Your task to perform on an android device: Go to calendar. Show me events next week Image 0: 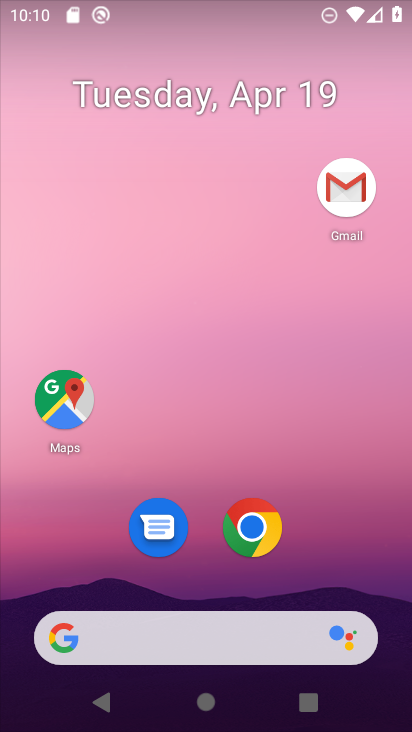
Step 0: drag from (354, 521) to (357, 136)
Your task to perform on an android device: Go to calendar. Show me events next week Image 1: 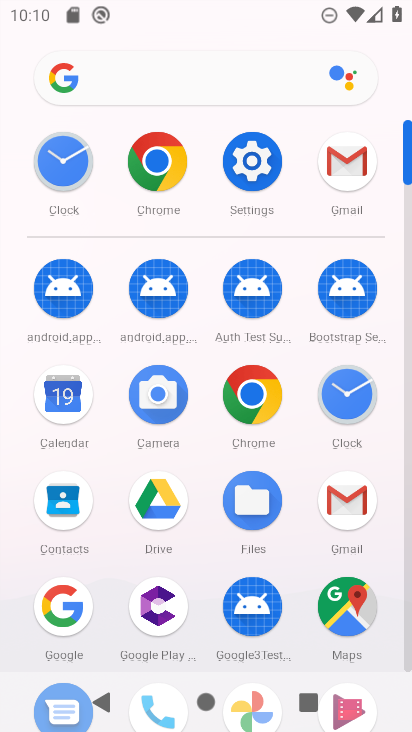
Step 1: click (64, 407)
Your task to perform on an android device: Go to calendar. Show me events next week Image 2: 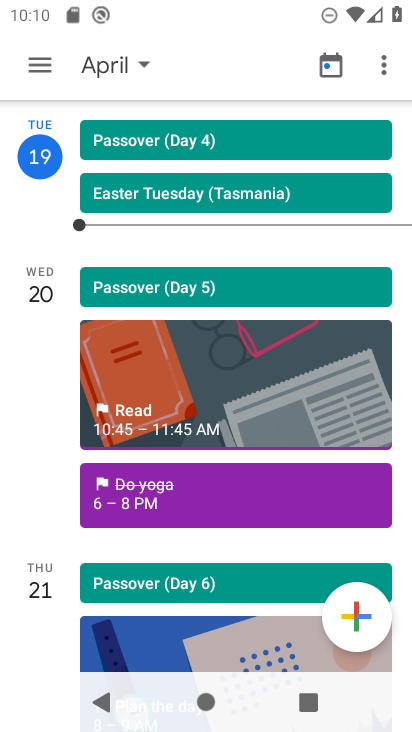
Step 2: click (111, 63)
Your task to perform on an android device: Go to calendar. Show me events next week Image 3: 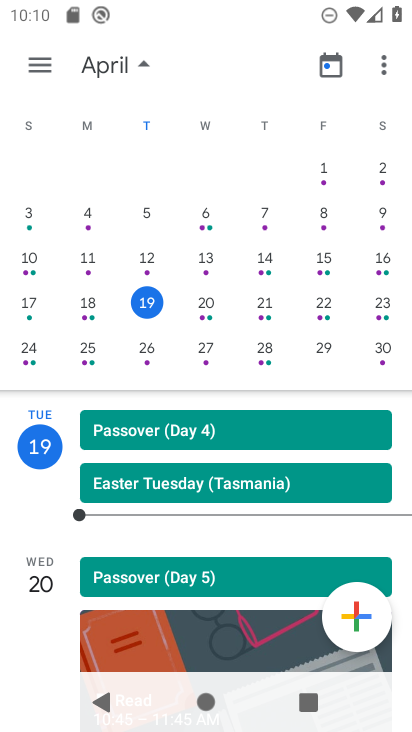
Step 3: click (29, 346)
Your task to perform on an android device: Go to calendar. Show me events next week Image 4: 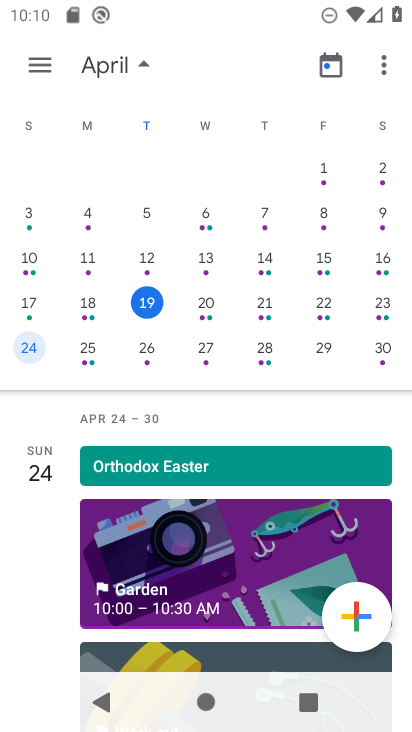
Step 4: task complete